Your task to perform on an android device: toggle wifi Image 0: 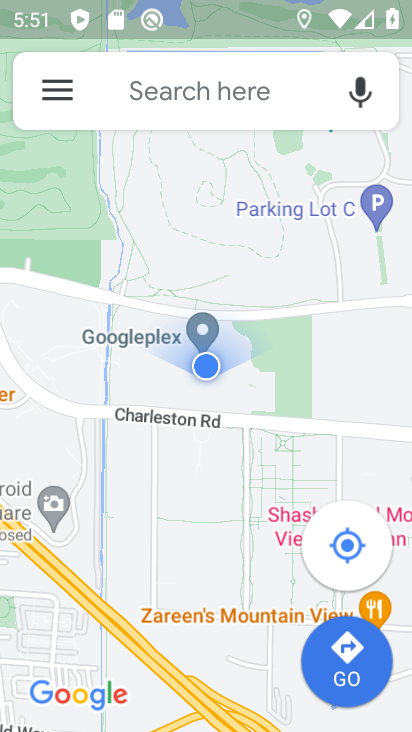
Step 0: drag from (252, 6) to (270, 353)
Your task to perform on an android device: toggle wifi Image 1: 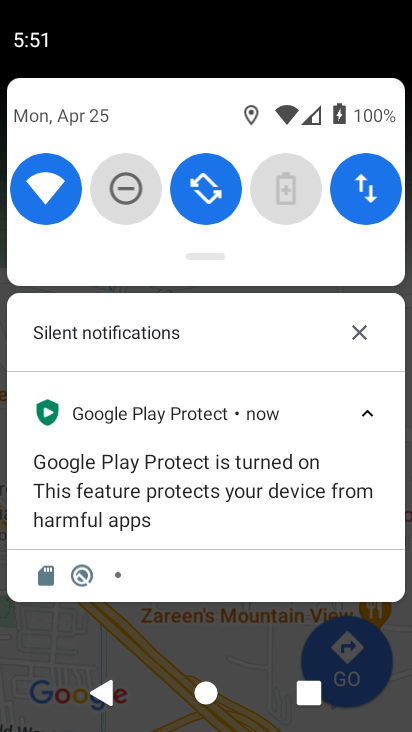
Step 1: press home button
Your task to perform on an android device: toggle wifi Image 2: 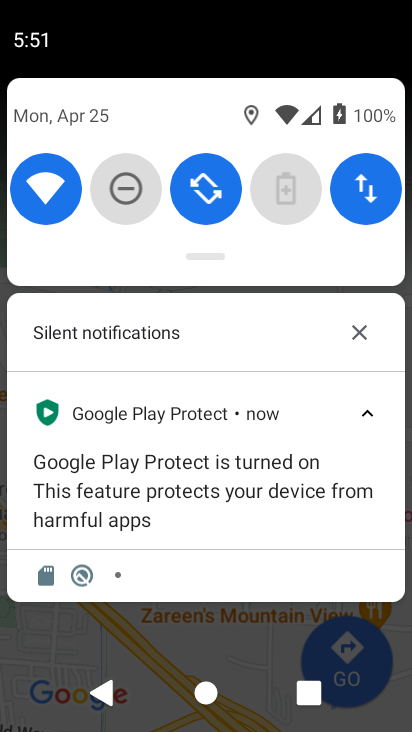
Step 2: press home button
Your task to perform on an android device: toggle wifi Image 3: 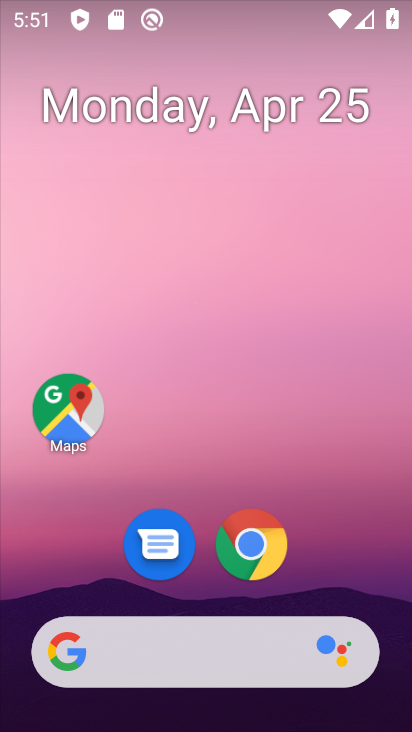
Step 3: drag from (203, 7) to (269, 451)
Your task to perform on an android device: toggle wifi Image 4: 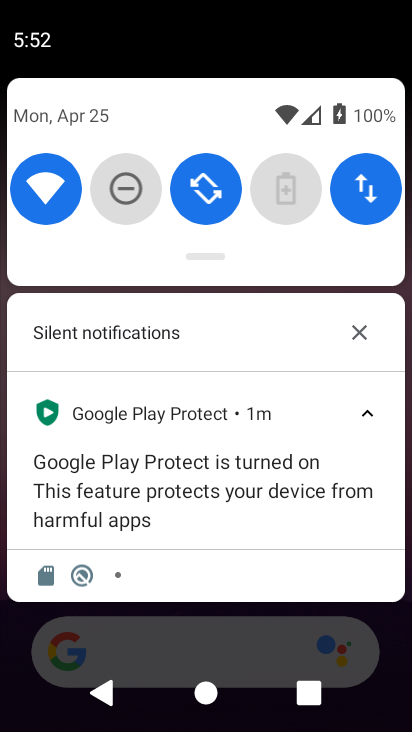
Step 4: click (48, 171)
Your task to perform on an android device: toggle wifi Image 5: 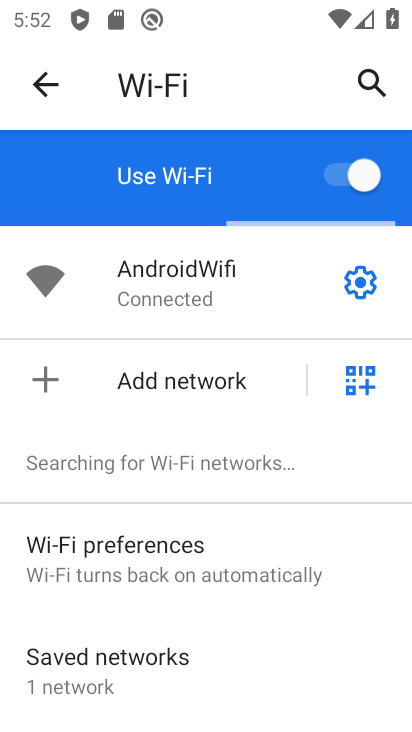
Step 5: click (347, 168)
Your task to perform on an android device: toggle wifi Image 6: 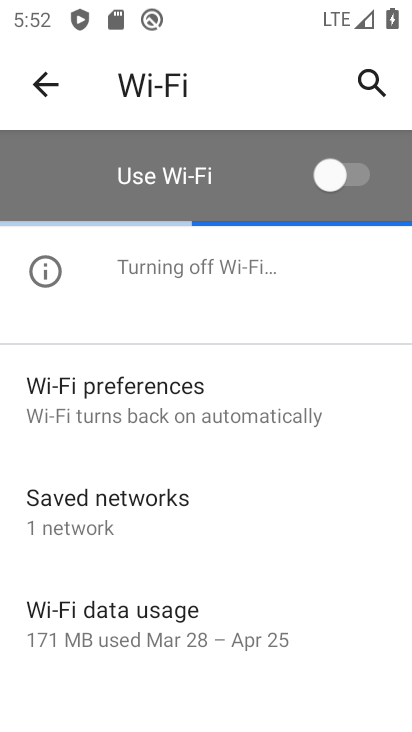
Step 6: task complete